Your task to perform on an android device: turn pop-ups on in chrome Image 0: 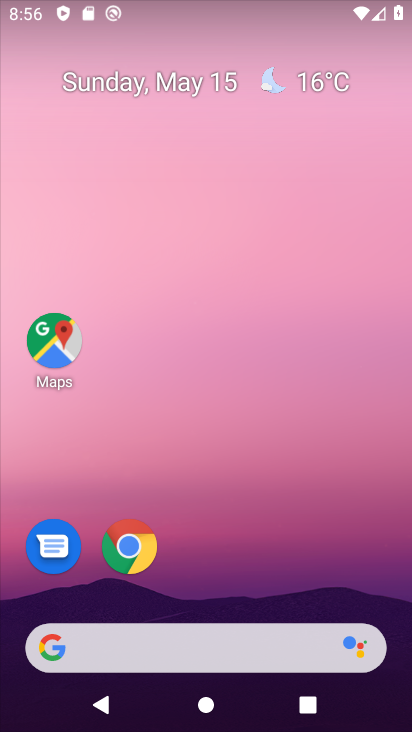
Step 0: click (134, 556)
Your task to perform on an android device: turn pop-ups on in chrome Image 1: 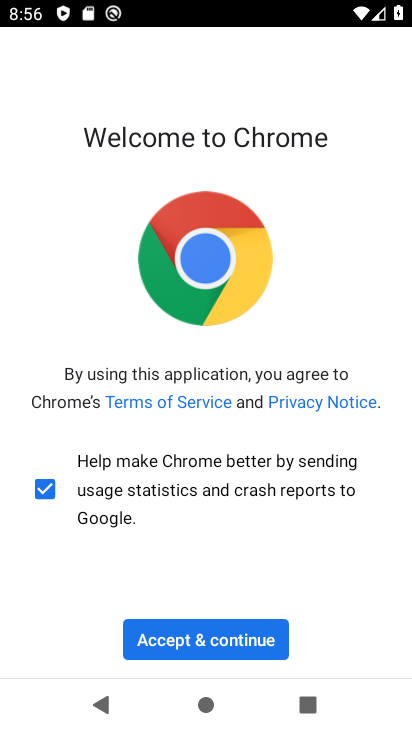
Step 1: click (234, 647)
Your task to perform on an android device: turn pop-ups on in chrome Image 2: 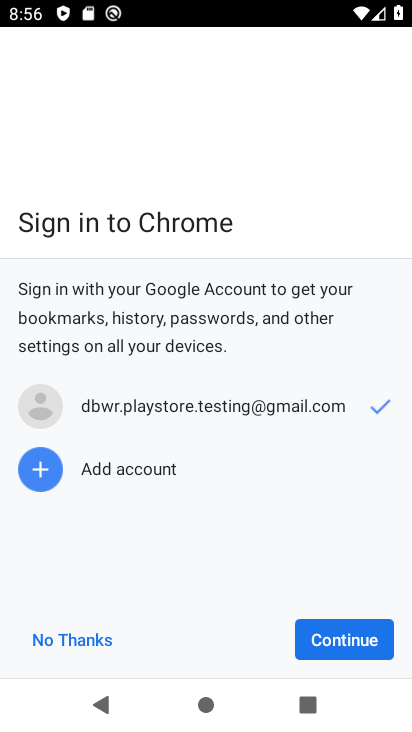
Step 2: click (341, 628)
Your task to perform on an android device: turn pop-ups on in chrome Image 3: 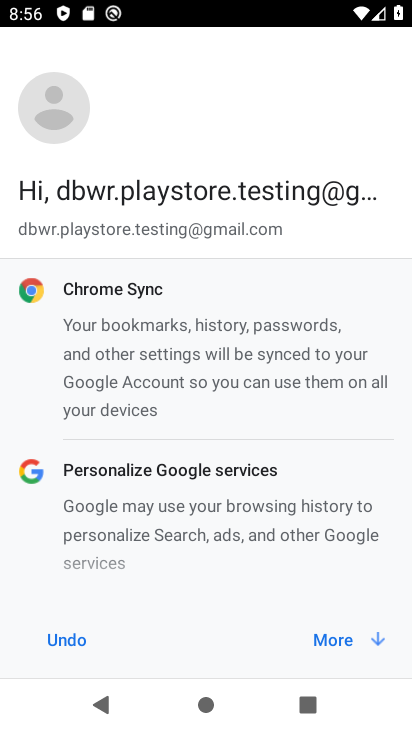
Step 3: click (341, 652)
Your task to perform on an android device: turn pop-ups on in chrome Image 4: 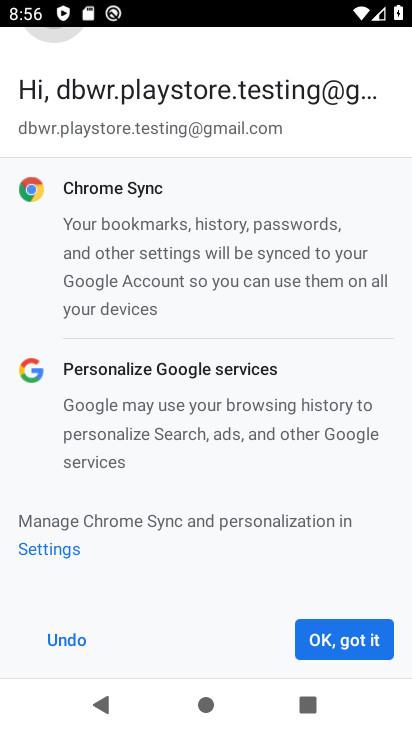
Step 4: click (341, 653)
Your task to perform on an android device: turn pop-ups on in chrome Image 5: 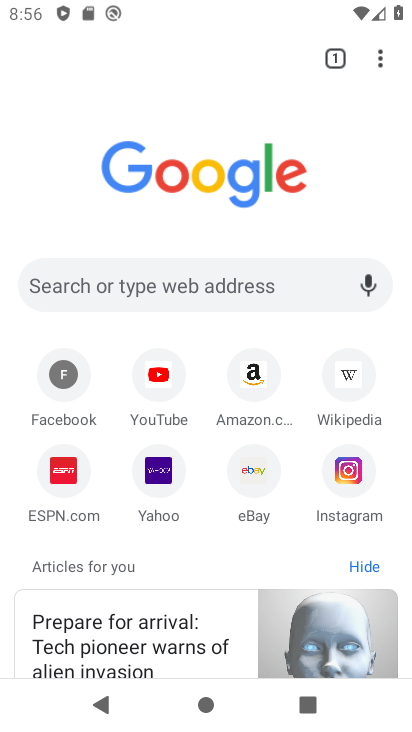
Step 5: drag from (385, 63) to (238, 477)
Your task to perform on an android device: turn pop-ups on in chrome Image 6: 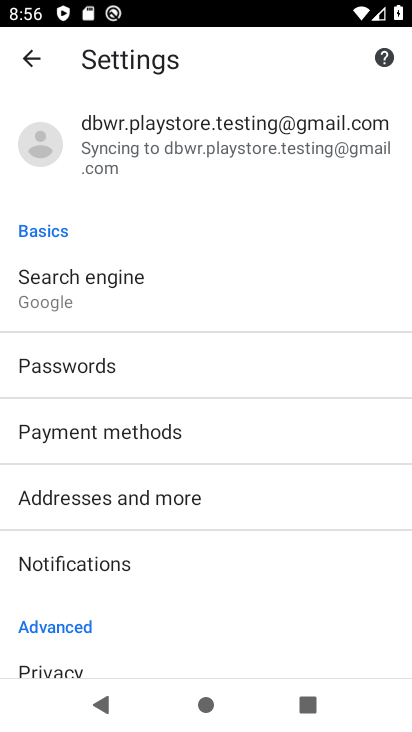
Step 6: drag from (202, 635) to (312, 239)
Your task to perform on an android device: turn pop-ups on in chrome Image 7: 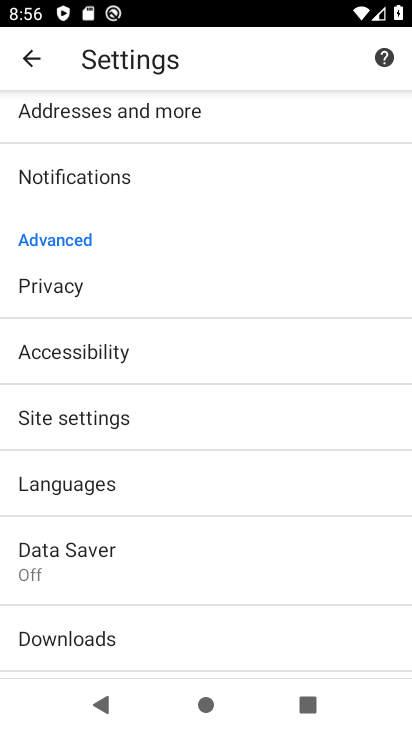
Step 7: click (182, 429)
Your task to perform on an android device: turn pop-ups on in chrome Image 8: 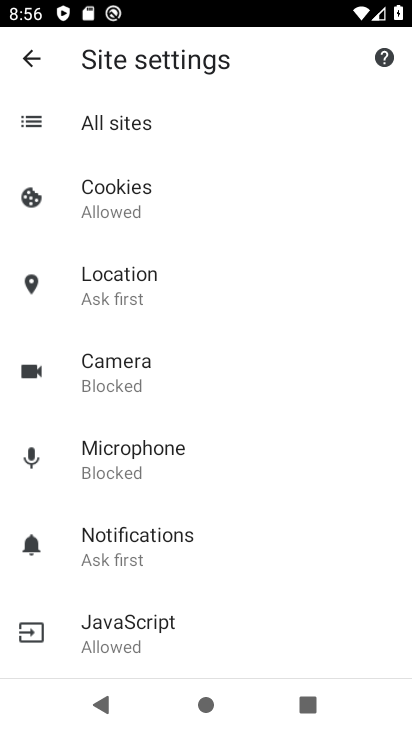
Step 8: drag from (211, 595) to (278, 250)
Your task to perform on an android device: turn pop-ups on in chrome Image 9: 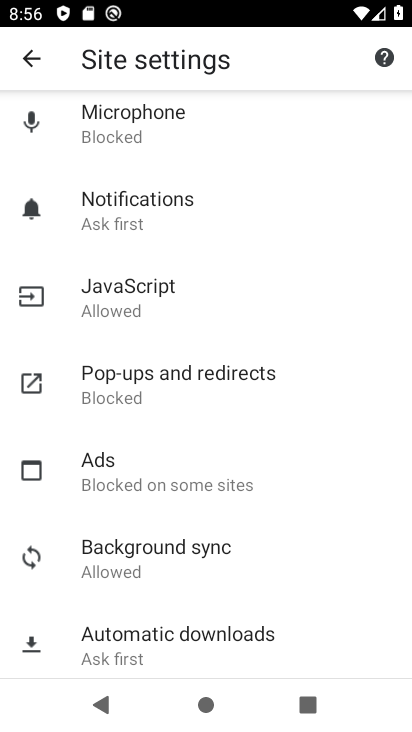
Step 9: click (202, 402)
Your task to perform on an android device: turn pop-ups on in chrome Image 10: 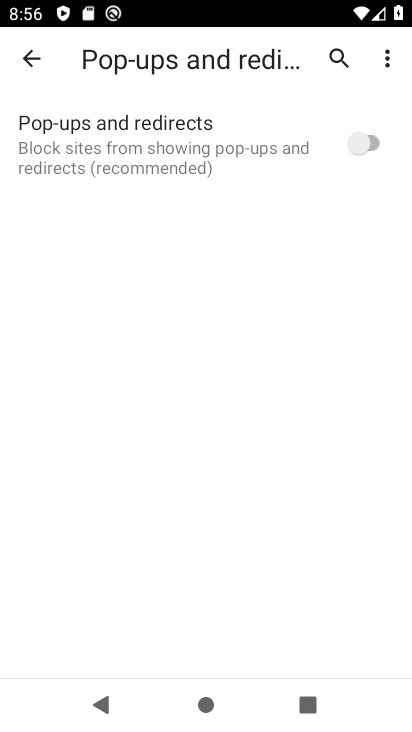
Step 10: click (379, 144)
Your task to perform on an android device: turn pop-ups on in chrome Image 11: 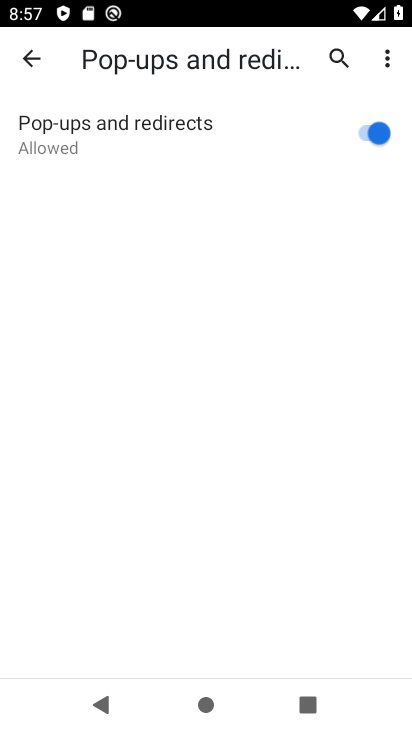
Step 11: task complete